Your task to perform on an android device: see sites visited before in the chrome app Image 0: 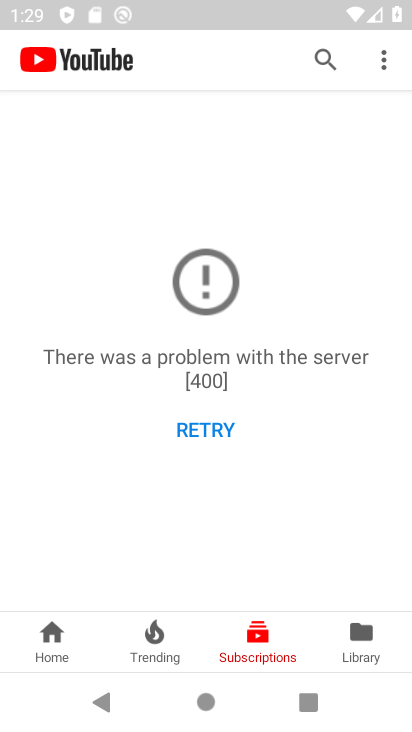
Step 0: press home button
Your task to perform on an android device: see sites visited before in the chrome app Image 1: 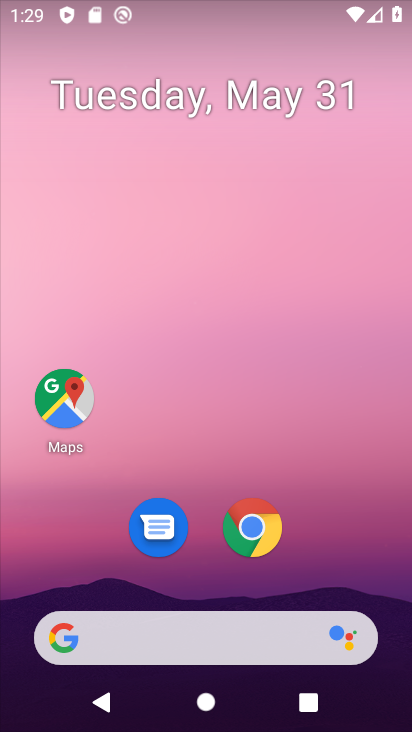
Step 1: drag from (384, 474) to (382, 152)
Your task to perform on an android device: see sites visited before in the chrome app Image 2: 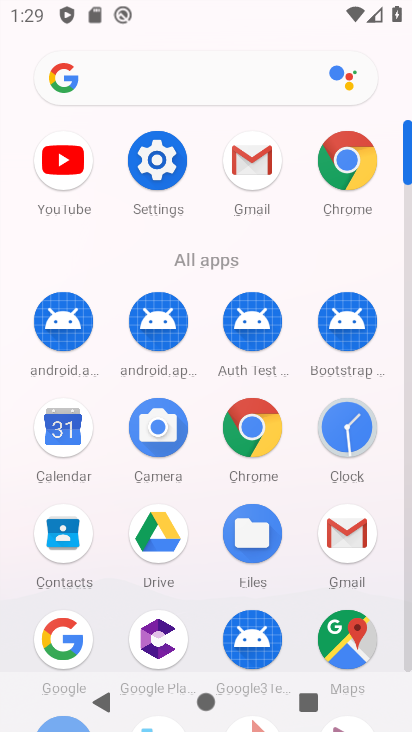
Step 2: click (365, 163)
Your task to perform on an android device: see sites visited before in the chrome app Image 3: 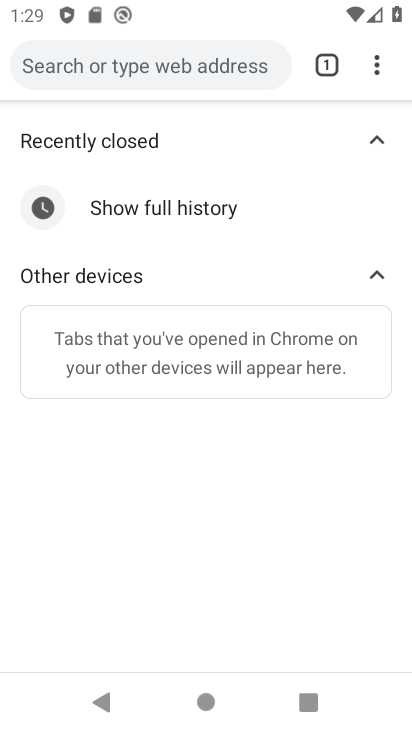
Step 3: task complete